Your task to perform on an android device: Open settings Image 0: 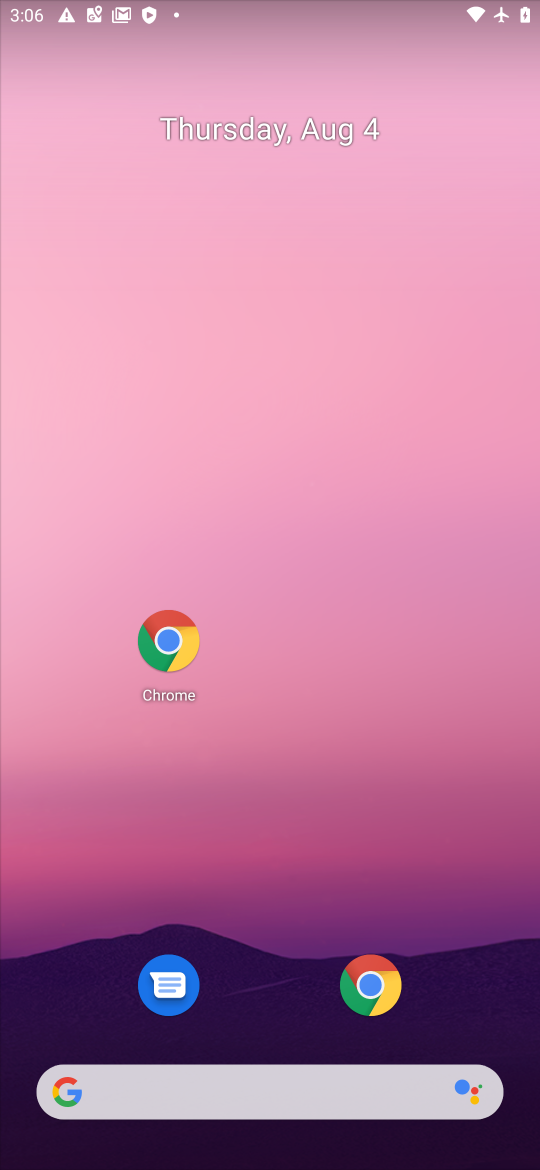
Step 0: drag from (366, 932) to (259, 146)
Your task to perform on an android device: Open settings Image 1: 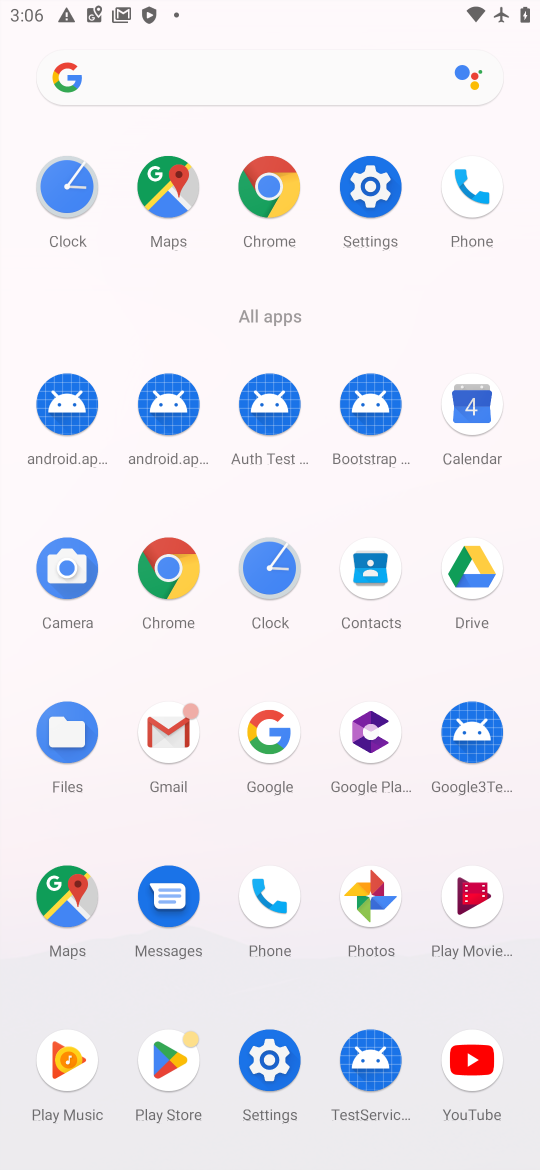
Step 1: drag from (329, 1017) to (320, 261)
Your task to perform on an android device: Open settings Image 2: 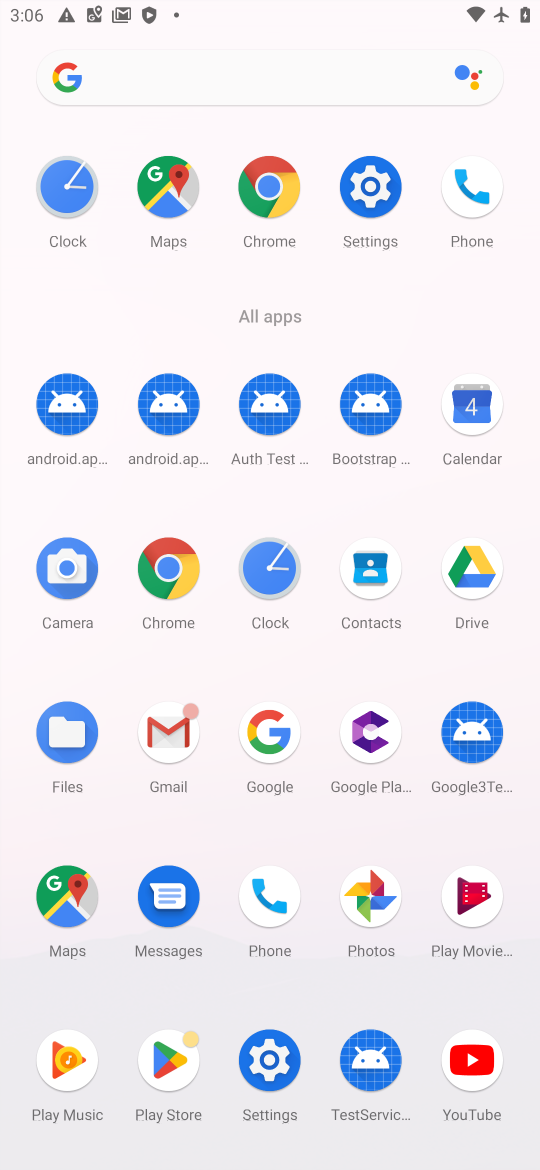
Step 2: click (371, 199)
Your task to perform on an android device: Open settings Image 3: 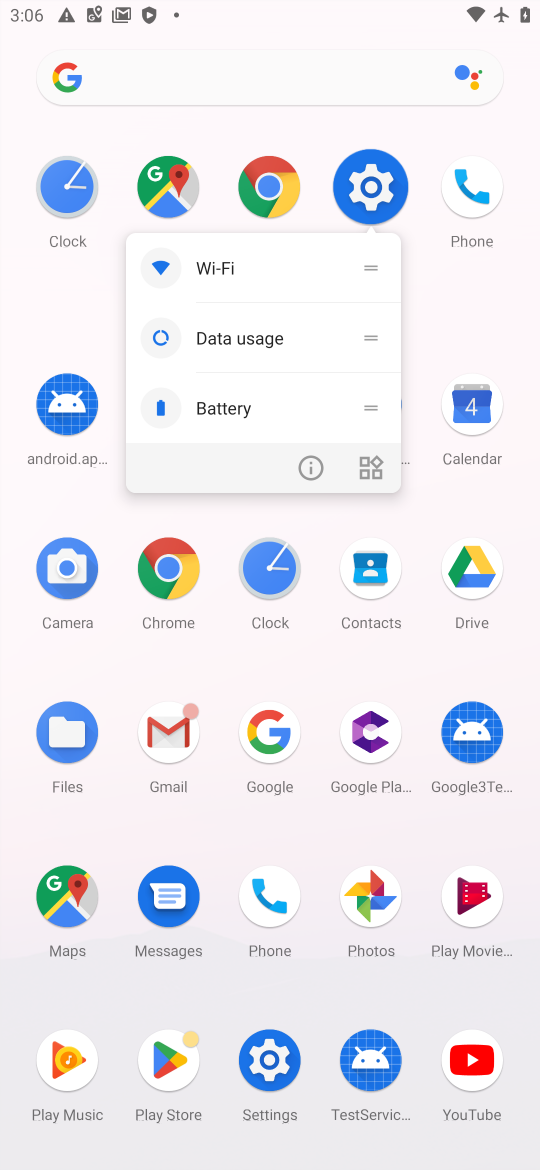
Step 3: click (371, 200)
Your task to perform on an android device: Open settings Image 4: 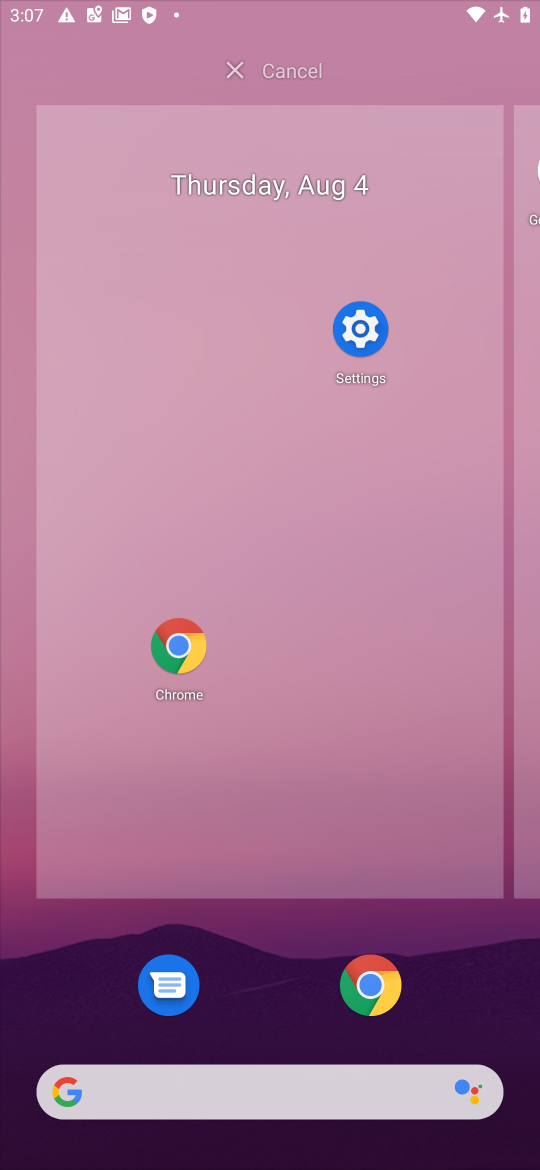
Step 4: drag from (310, 933) to (294, 390)
Your task to perform on an android device: Open settings Image 5: 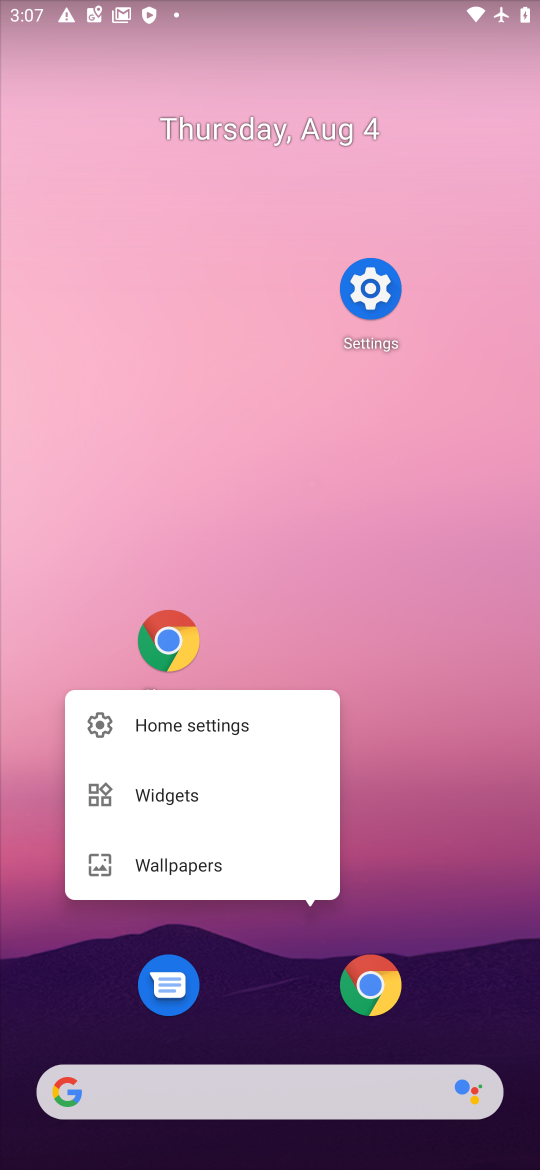
Step 5: drag from (349, 838) to (312, 559)
Your task to perform on an android device: Open settings Image 6: 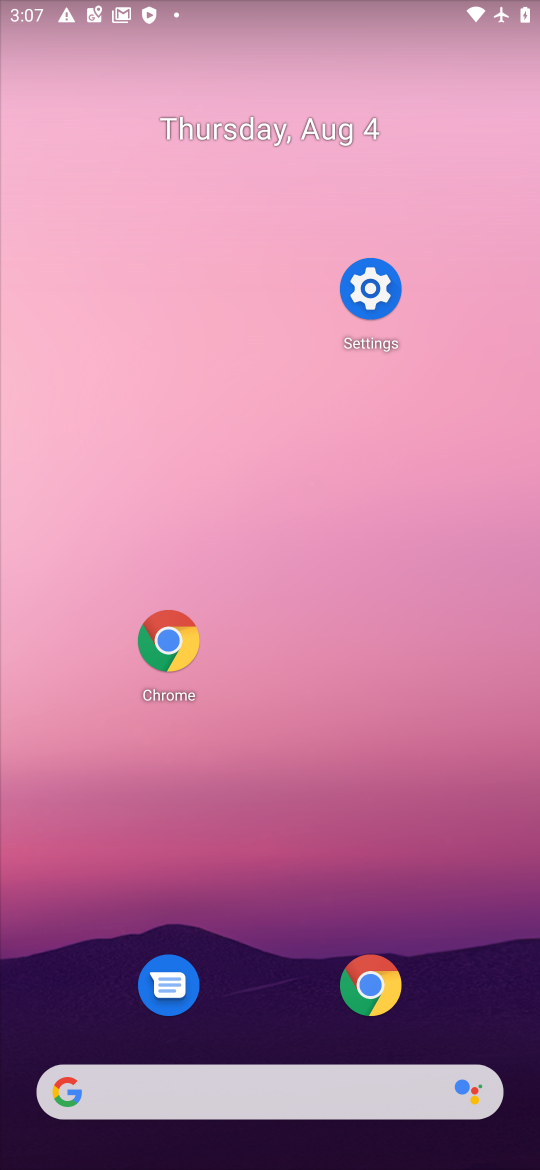
Step 6: drag from (360, 871) to (218, 356)
Your task to perform on an android device: Open settings Image 7: 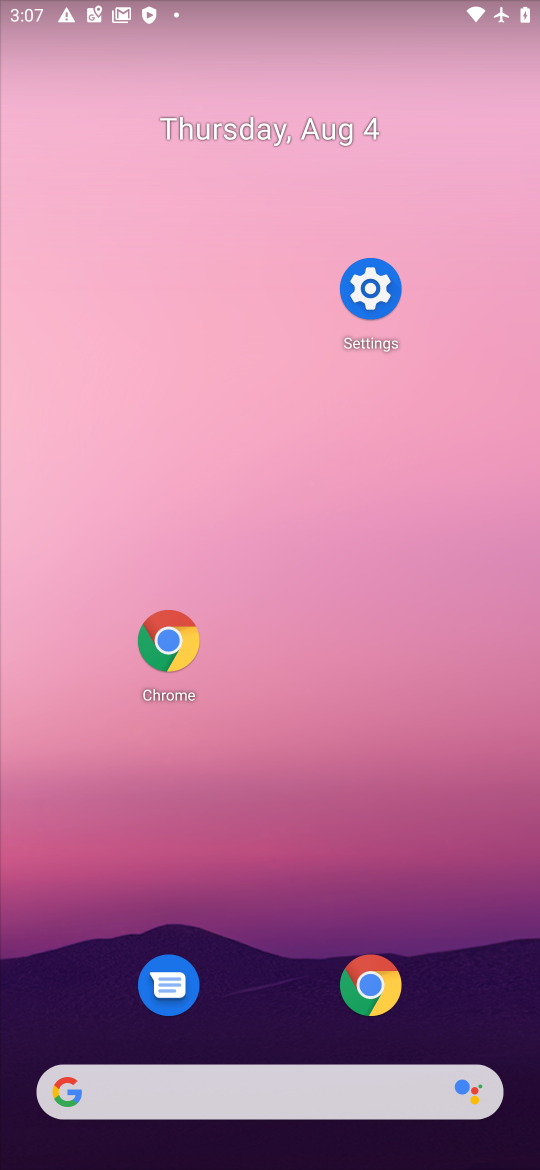
Step 7: drag from (320, 869) to (223, 418)
Your task to perform on an android device: Open settings Image 8: 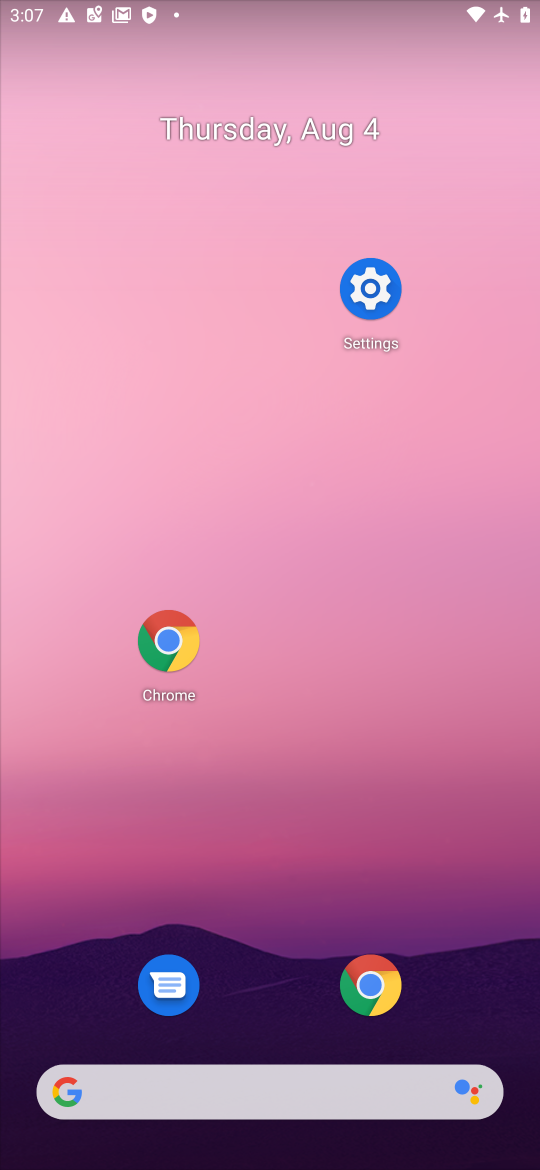
Step 8: click (361, 291)
Your task to perform on an android device: Open settings Image 9: 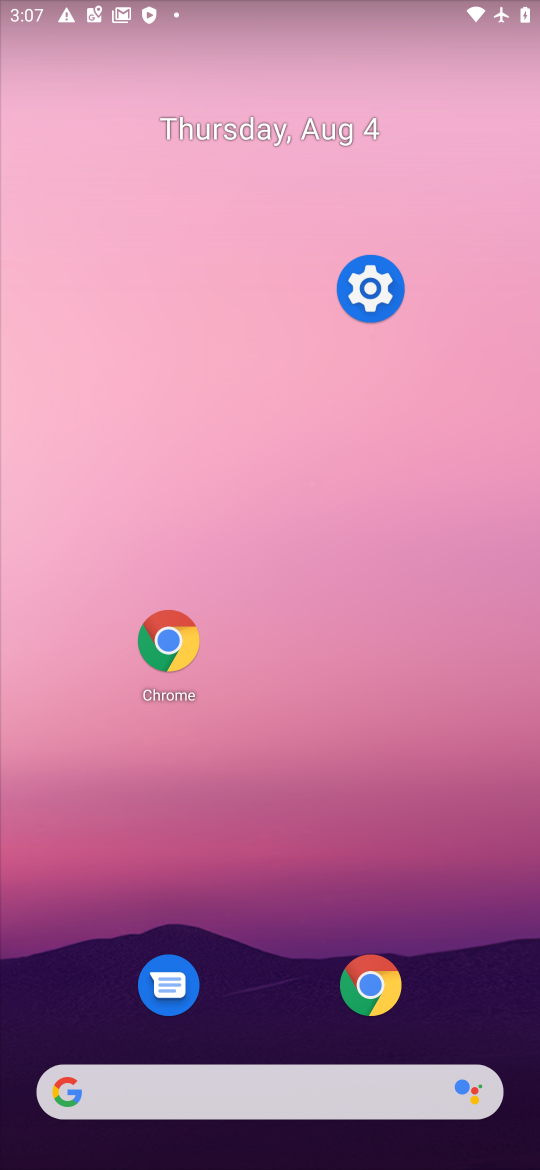
Step 9: click (361, 291)
Your task to perform on an android device: Open settings Image 10: 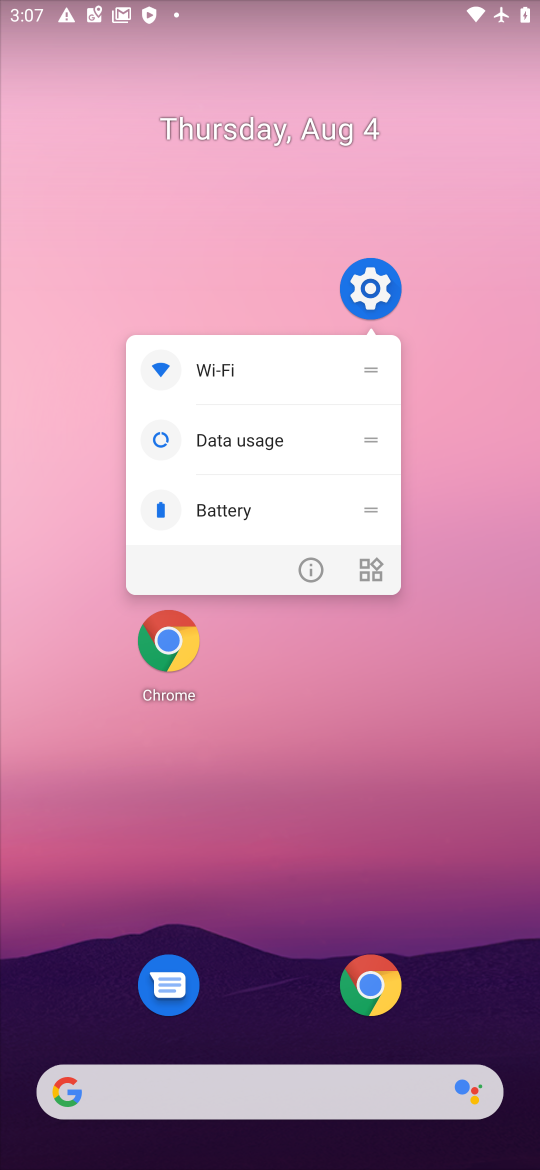
Step 10: click (223, 374)
Your task to perform on an android device: Open settings Image 11: 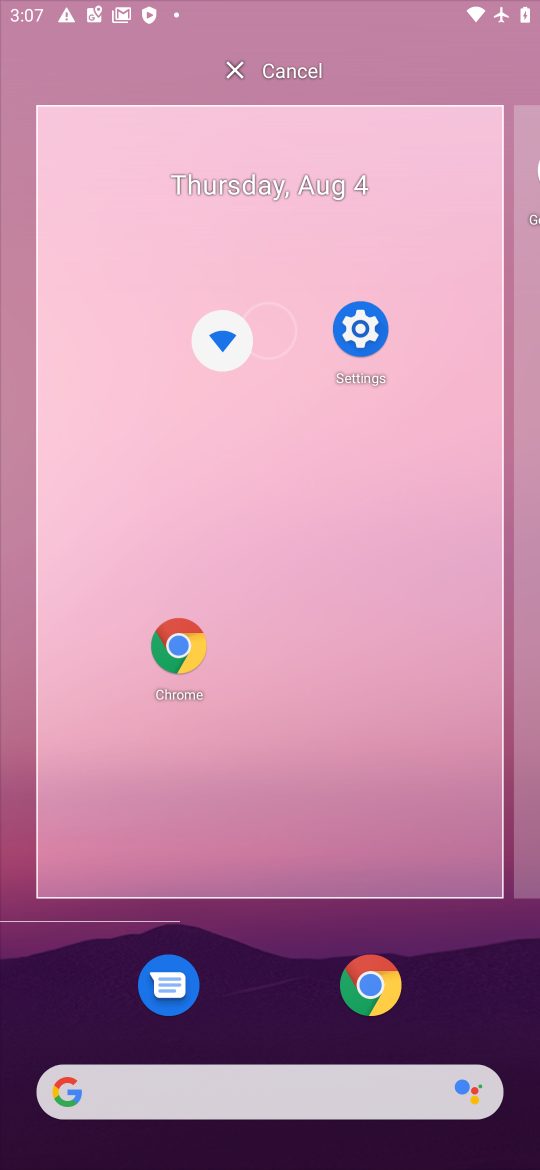
Step 11: click (231, 379)
Your task to perform on an android device: Open settings Image 12: 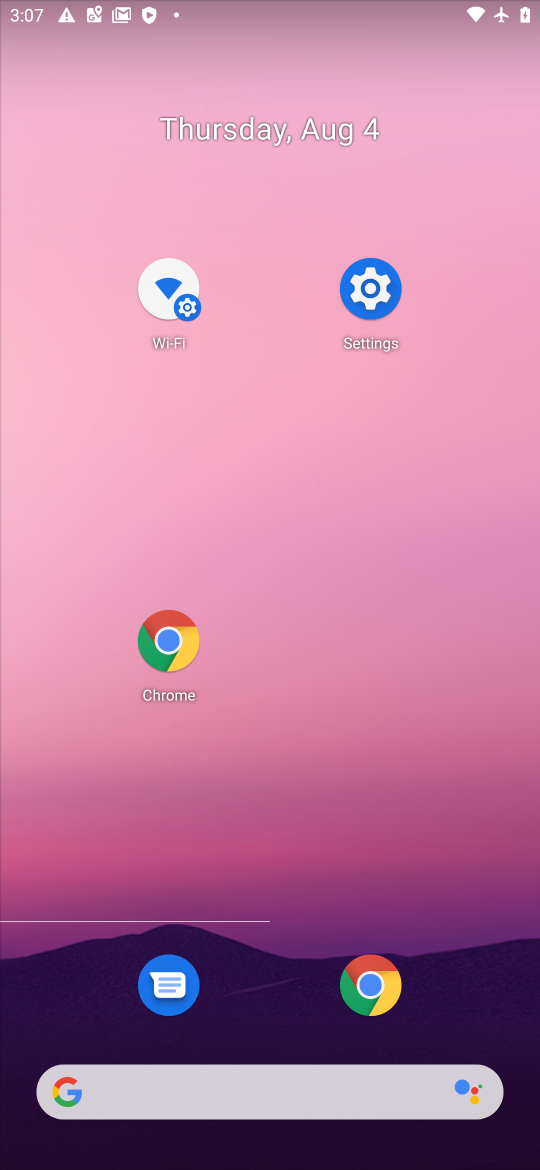
Step 12: drag from (320, 659) to (285, 79)
Your task to perform on an android device: Open settings Image 13: 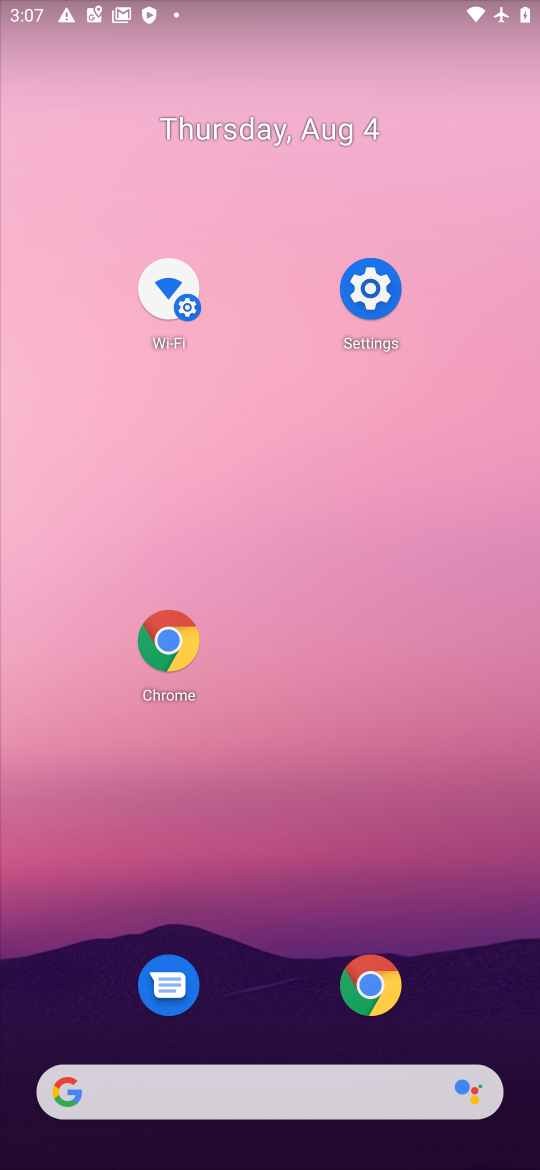
Step 13: drag from (393, 861) to (354, 140)
Your task to perform on an android device: Open settings Image 14: 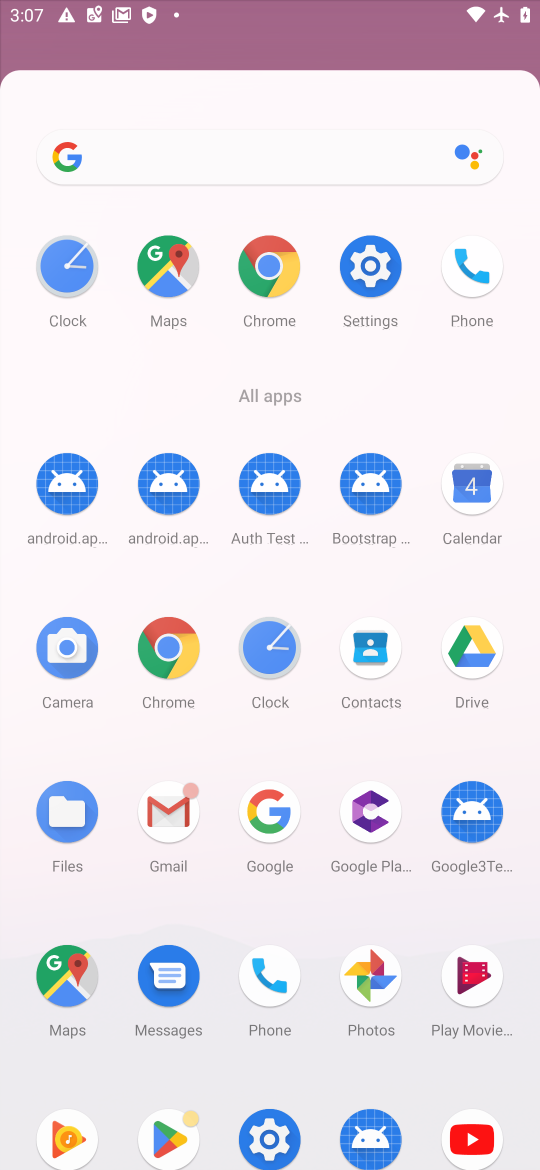
Step 14: drag from (431, 839) to (344, 121)
Your task to perform on an android device: Open settings Image 15: 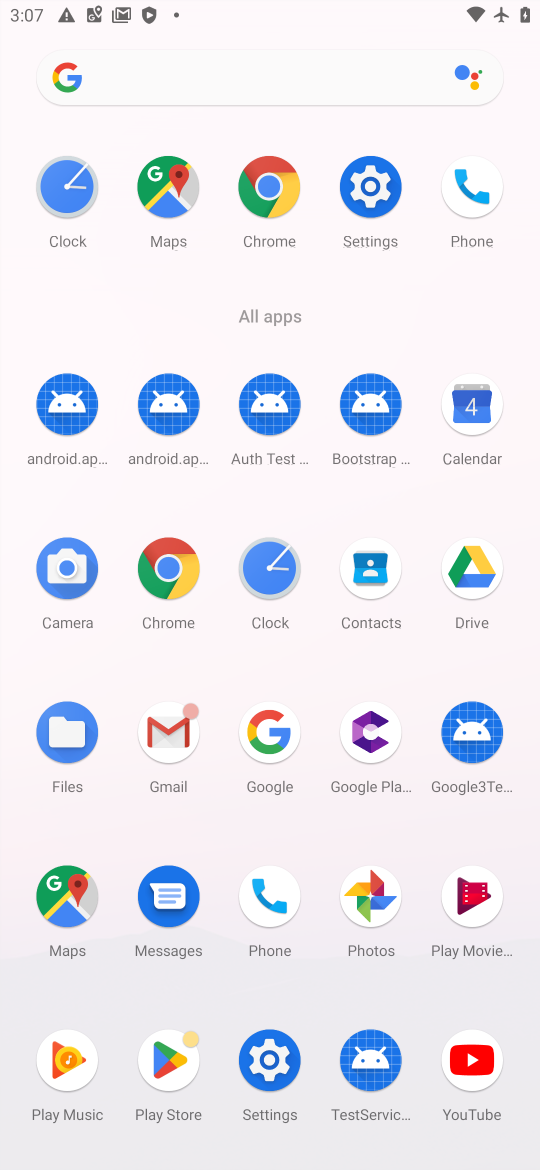
Step 15: click (379, 191)
Your task to perform on an android device: Open settings Image 16: 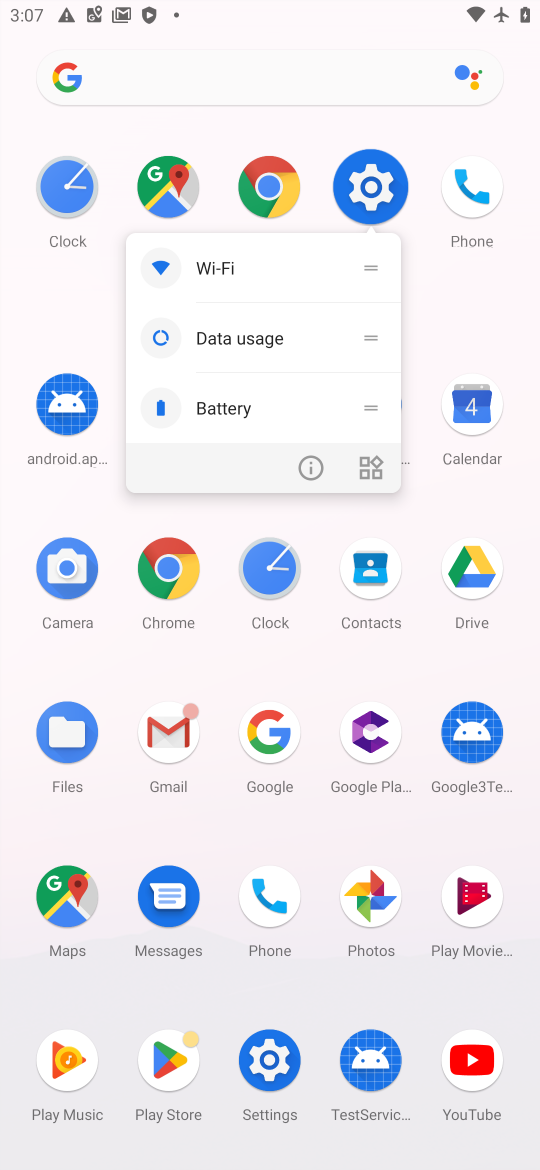
Step 16: click (381, 197)
Your task to perform on an android device: Open settings Image 17: 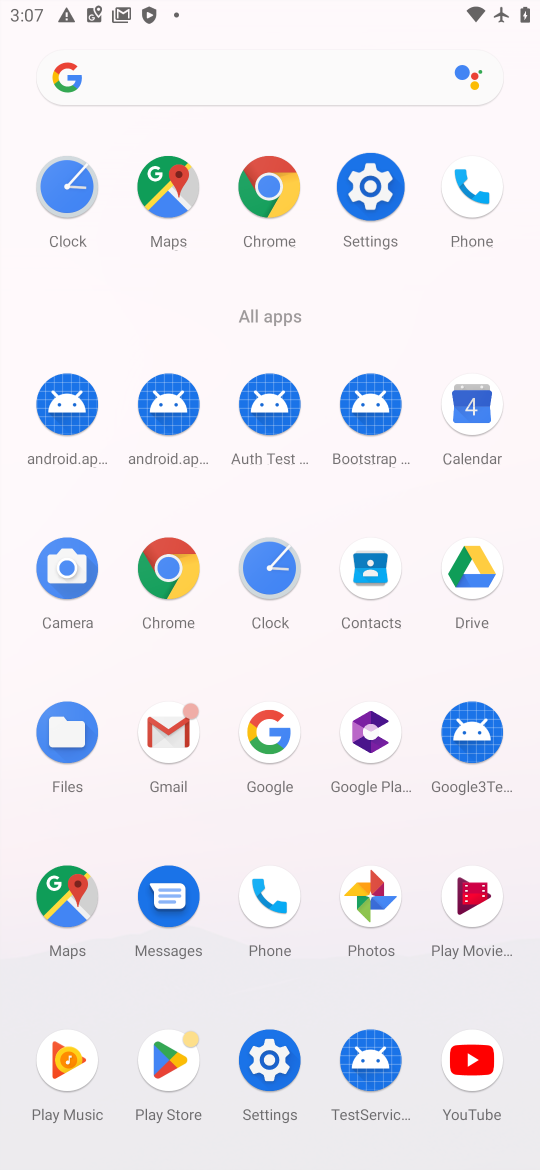
Step 17: click (381, 197)
Your task to perform on an android device: Open settings Image 18: 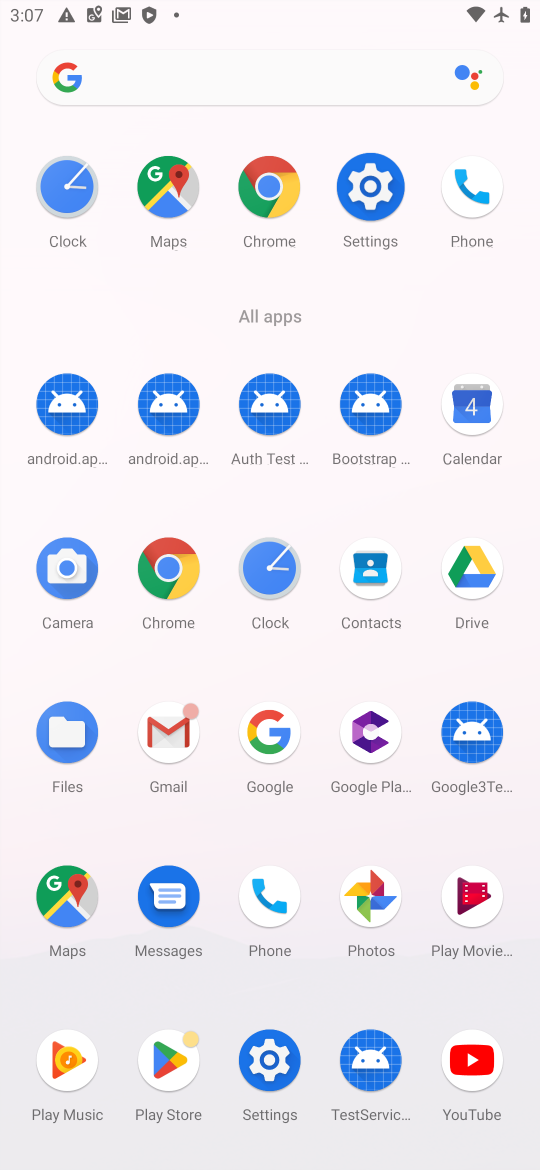
Step 18: click (381, 197)
Your task to perform on an android device: Open settings Image 19: 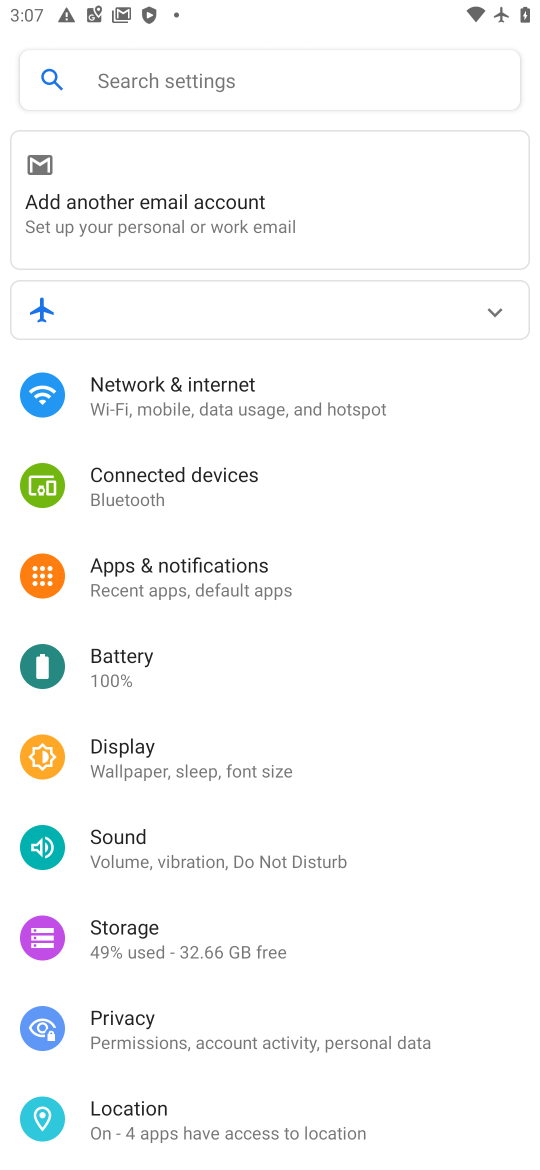
Step 19: task complete